Your task to perform on an android device: Find the nearest electronics store that's open now Image 0: 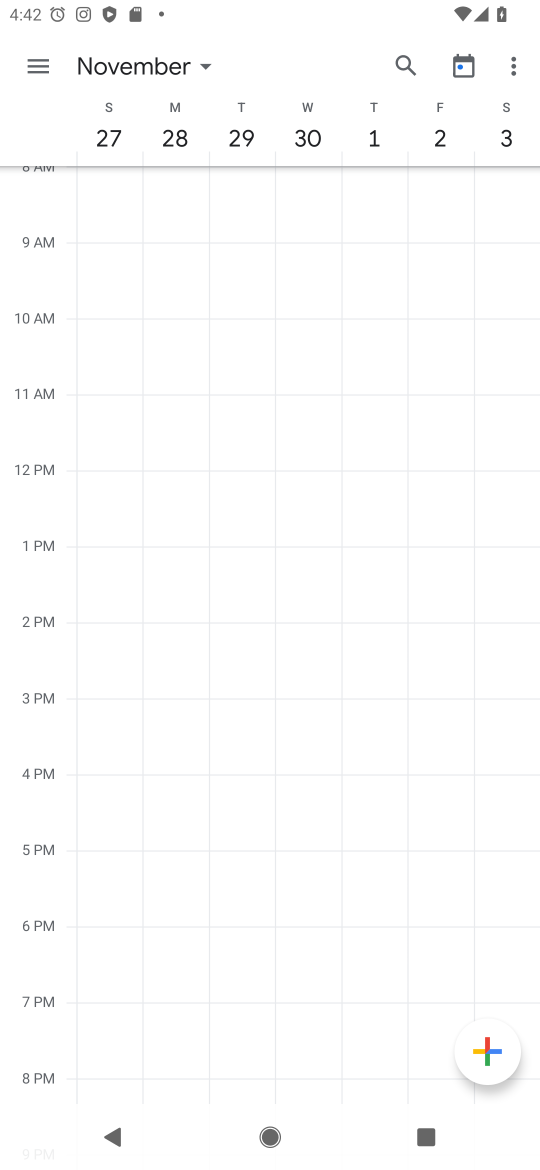
Step 0: press home button
Your task to perform on an android device: Find the nearest electronics store that's open now Image 1: 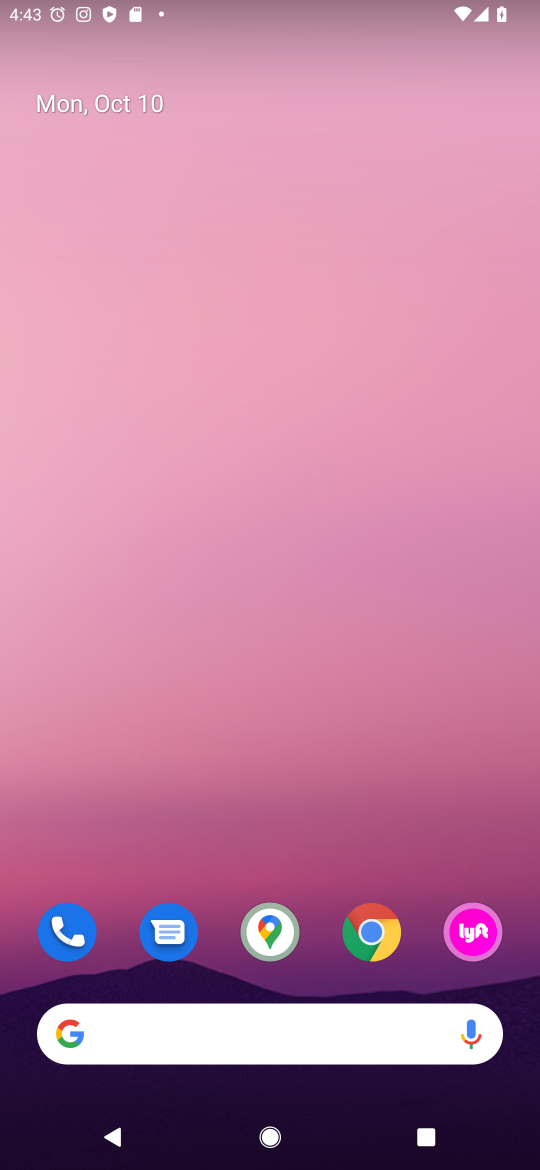
Step 1: click (290, 1038)
Your task to perform on an android device: Find the nearest electronics store that's open now Image 2: 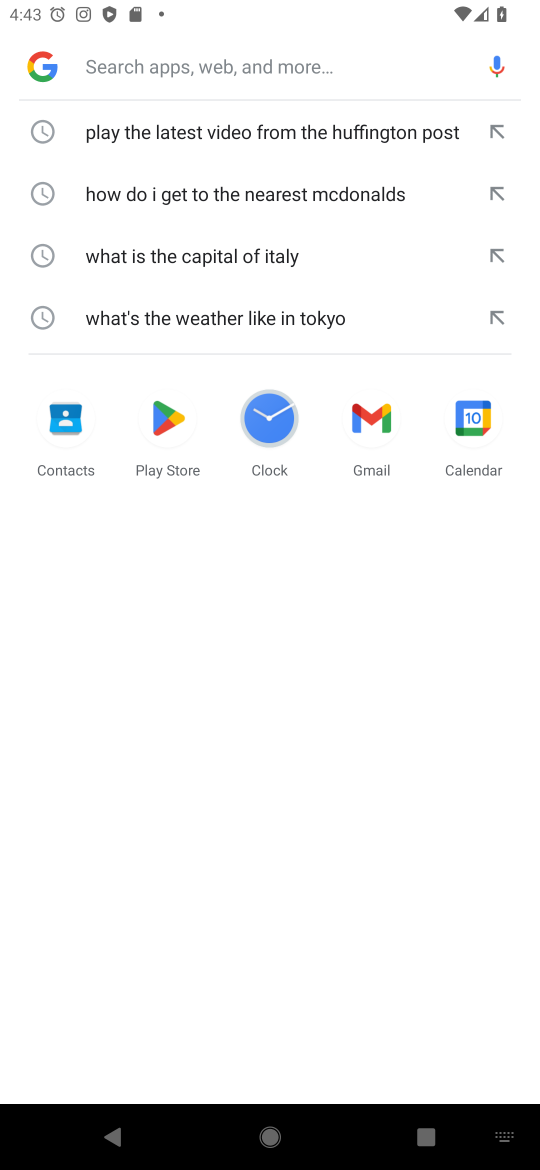
Step 2: type "Find the nearest electronics store that's open now"
Your task to perform on an android device: Find the nearest electronics store that's open now Image 3: 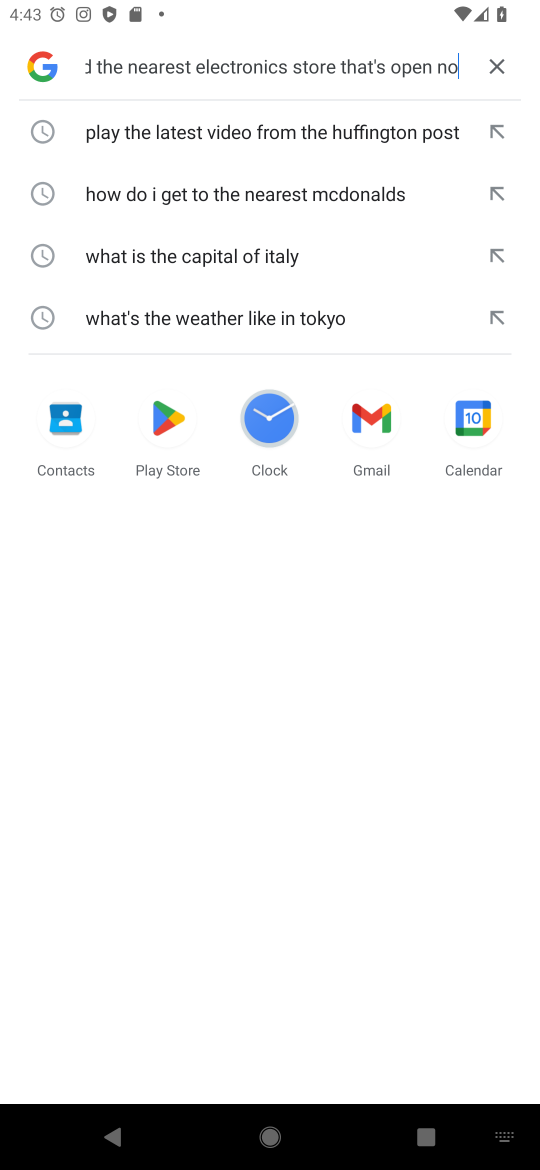
Step 3: press enter
Your task to perform on an android device: Find the nearest electronics store that's open now Image 4: 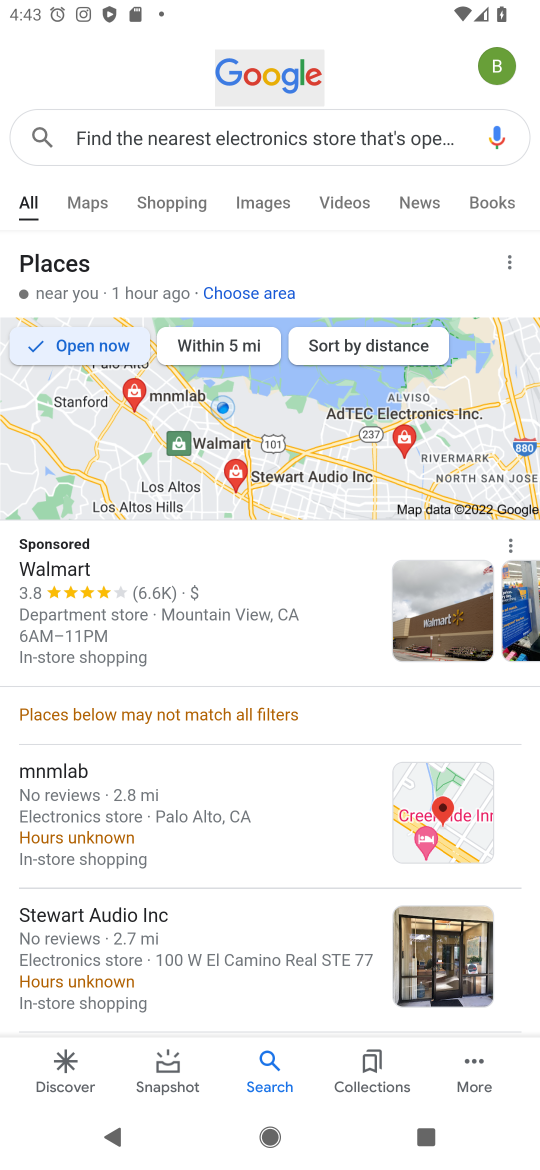
Step 4: task complete